Your task to perform on an android device: Play the last video I watched on Youtube Image 0: 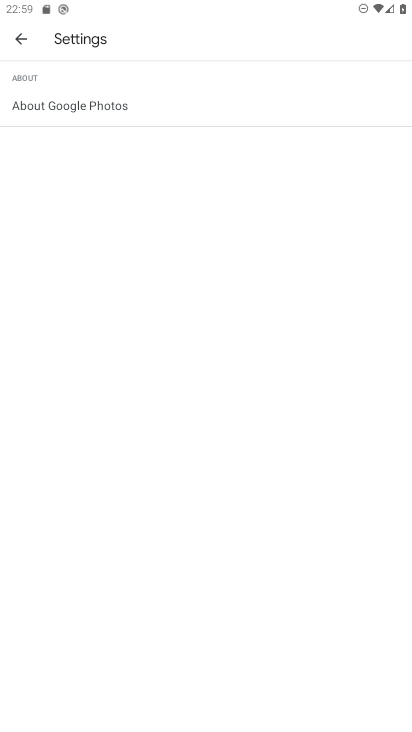
Step 0: press home button
Your task to perform on an android device: Play the last video I watched on Youtube Image 1: 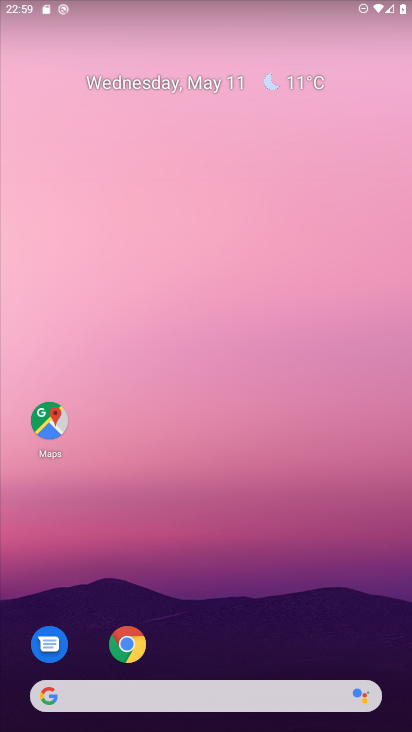
Step 1: click (345, 606)
Your task to perform on an android device: Play the last video I watched on Youtube Image 2: 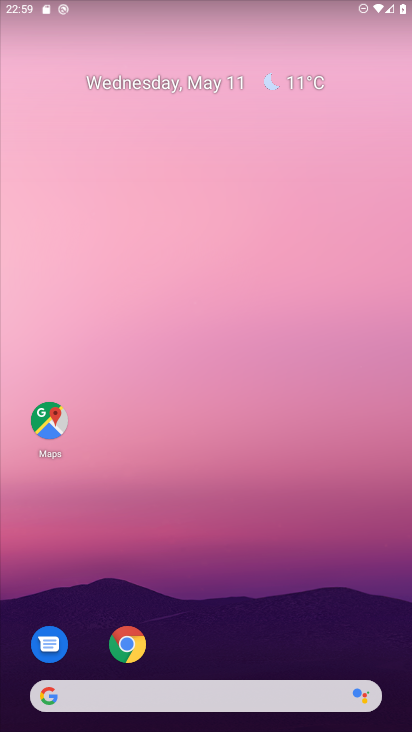
Step 2: drag from (345, 606) to (302, 186)
Your task to perform on an android device: Play the last video I watched on Youtube Image 3: 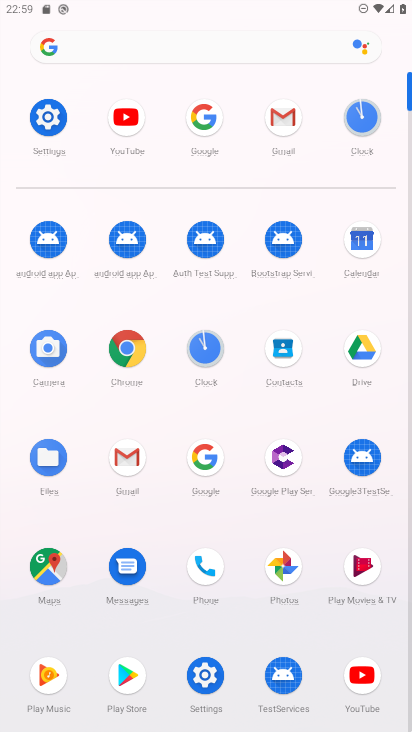
Step 3: click (126, 121)
Your task to perform on an android device: Play the last video I watched on Youtube Image 4: 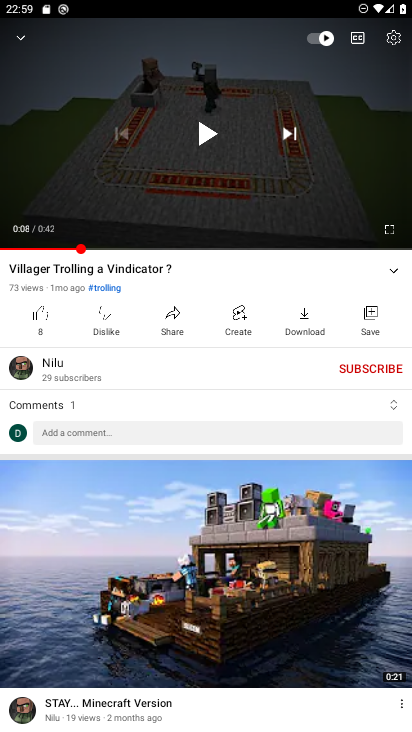
Step 4: click (18, 38)
Your task to perform on an android device: Play the last video I watched on Youtube Image 5: 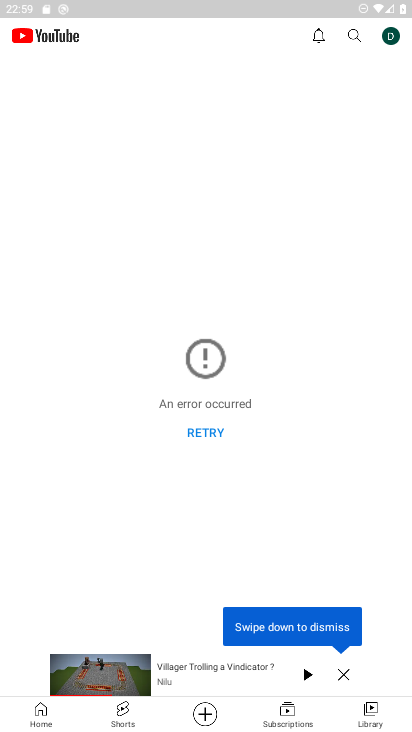
Step 5: click (374, 709)
Your task to perform on an android device: Play the last video I watched on Youtube Image 6: 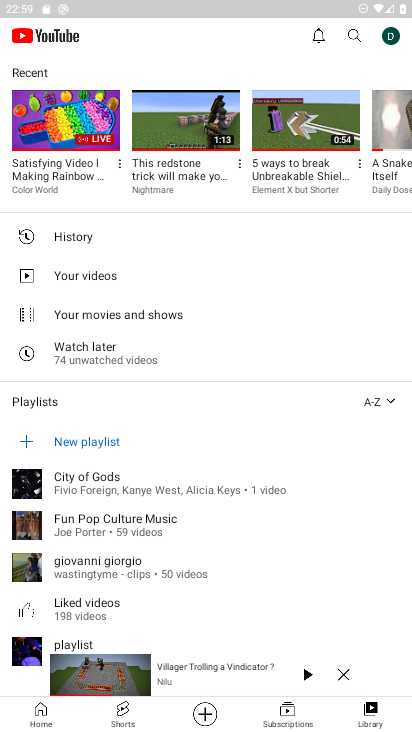
Step 6: click (66, 245)
Your task to perform on an android device: Play the last video I watched on Youtube Image 7: 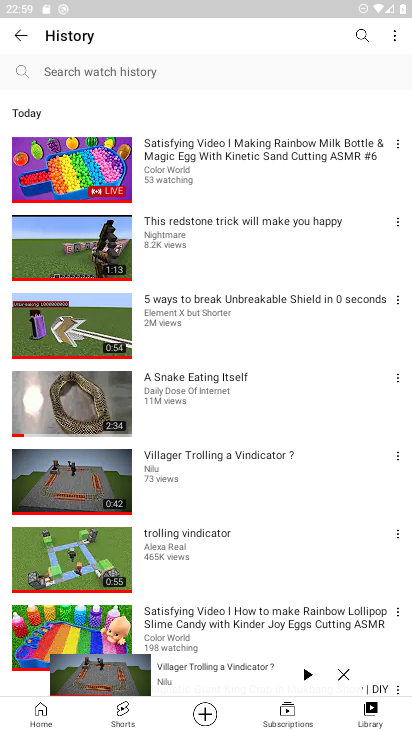
Step 7: click (83, 170)
Your task to perform on an android device: Play the last video I watched on Youtube Image 8: 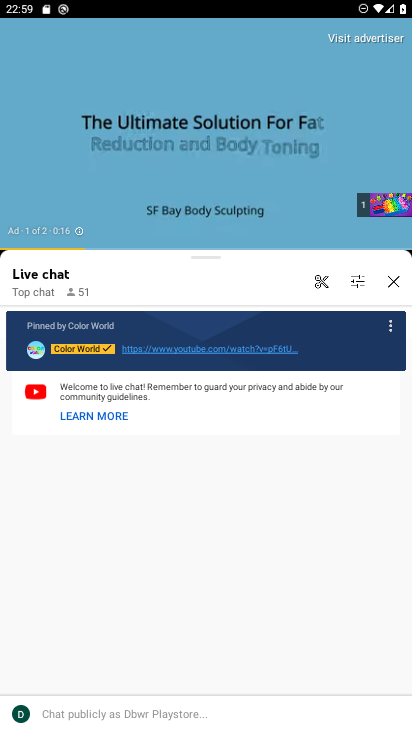
Step 8: click (199, 130)
Your task to perform on an android device: Play the last video I watched on Youtube Image 9: 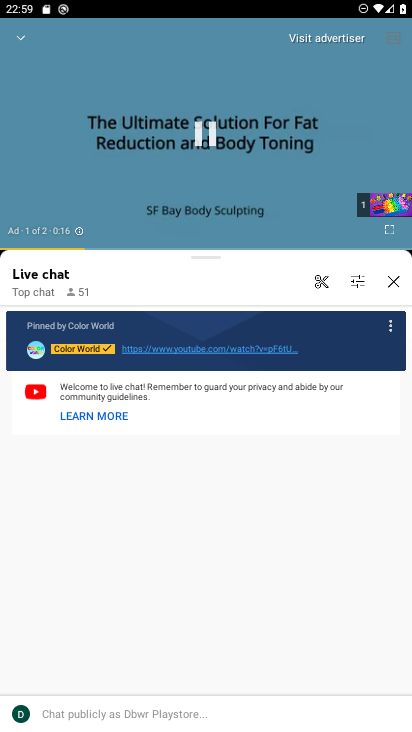
Step 9: click (199, 130)
Your task to perform on an android device: Play the last video I watched on Youtube Image 10: 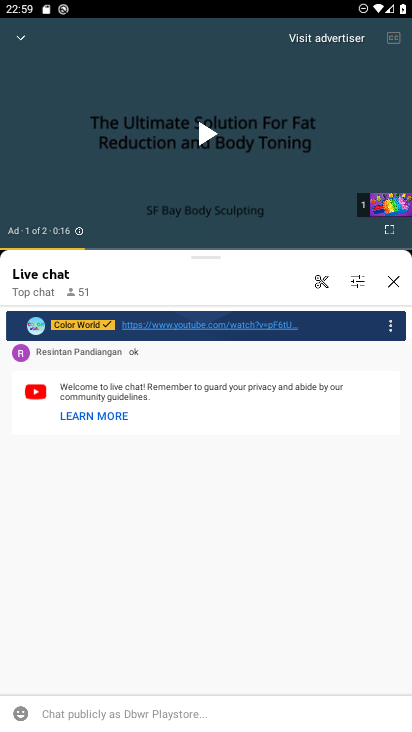
Step 10: click (199, 130)
Your task to perform on an android device: Play the last video I watched on Youtube Image 11: 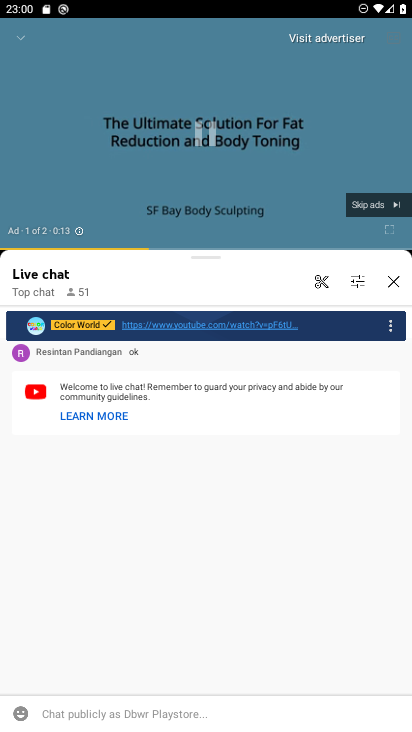
Step 11: click (199, 130)
Your task to perform on an android device: Play the last video I watched on Youtube Image 12: 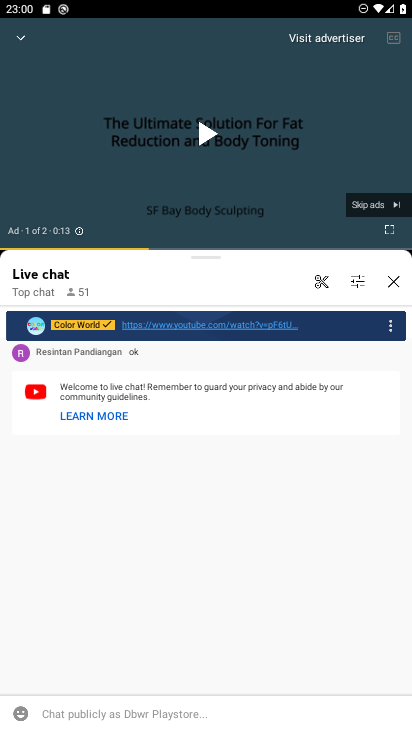
Step 12: click (199, 130)
Your task to perform on an android device: Play the last video I watched on Youtube Image 13: 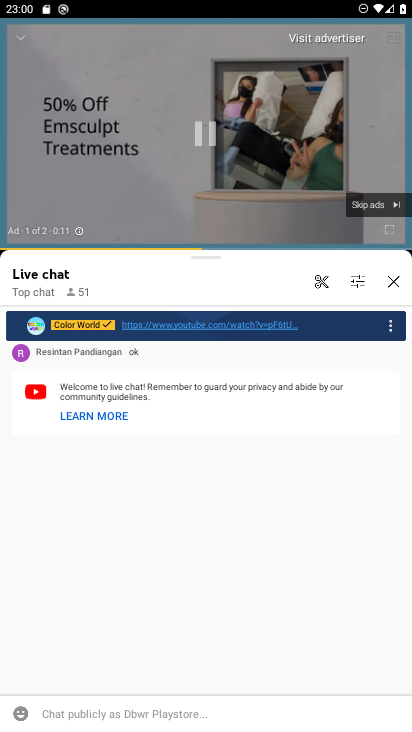
Step 13: click (361, 196)
Your task to perform on an android device: Play the last video I watched on Youtube Image 14: 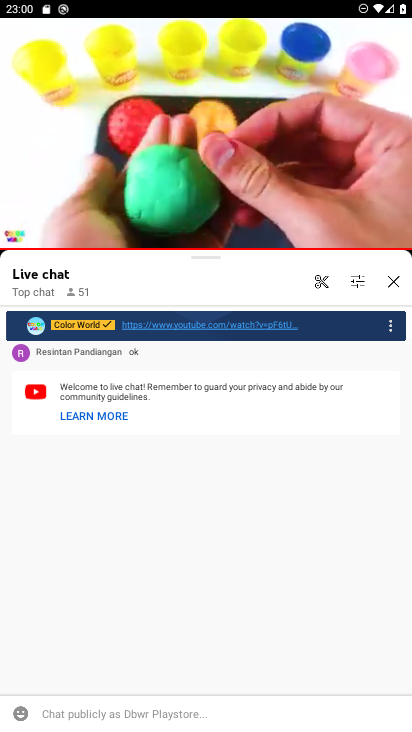
Step 14: click (203, 134)
Your task to perform on an android device: Play the last video I watched on Youtube Image 15: 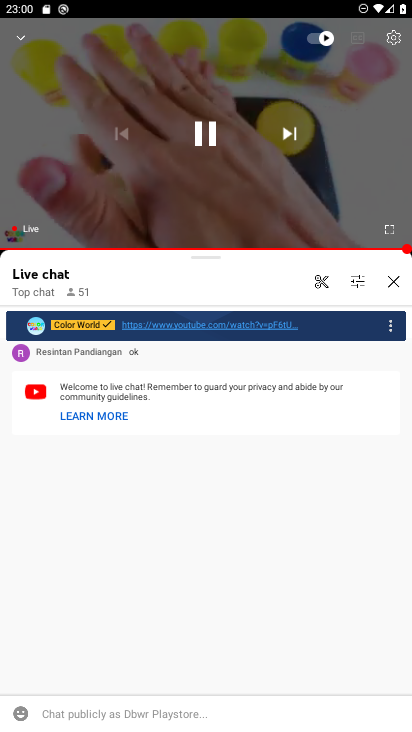
Step 15: click (203, 134)
Your task to perform on an android device: Play the last video I watched on Youtube Image 16: 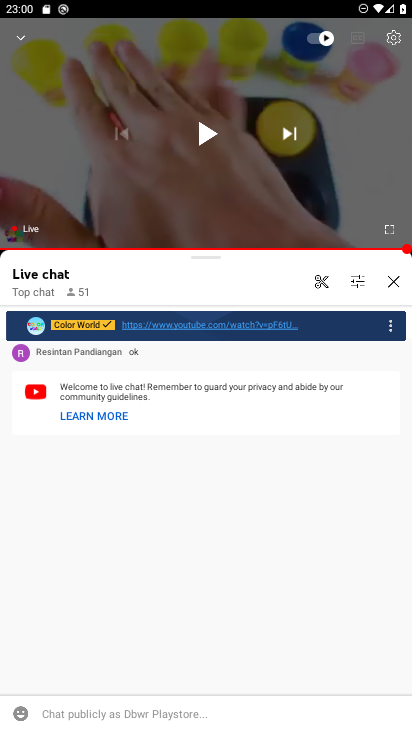
Step 16: task complete